Your task to perform on an android device: see creations saved in the google photos Image 0: 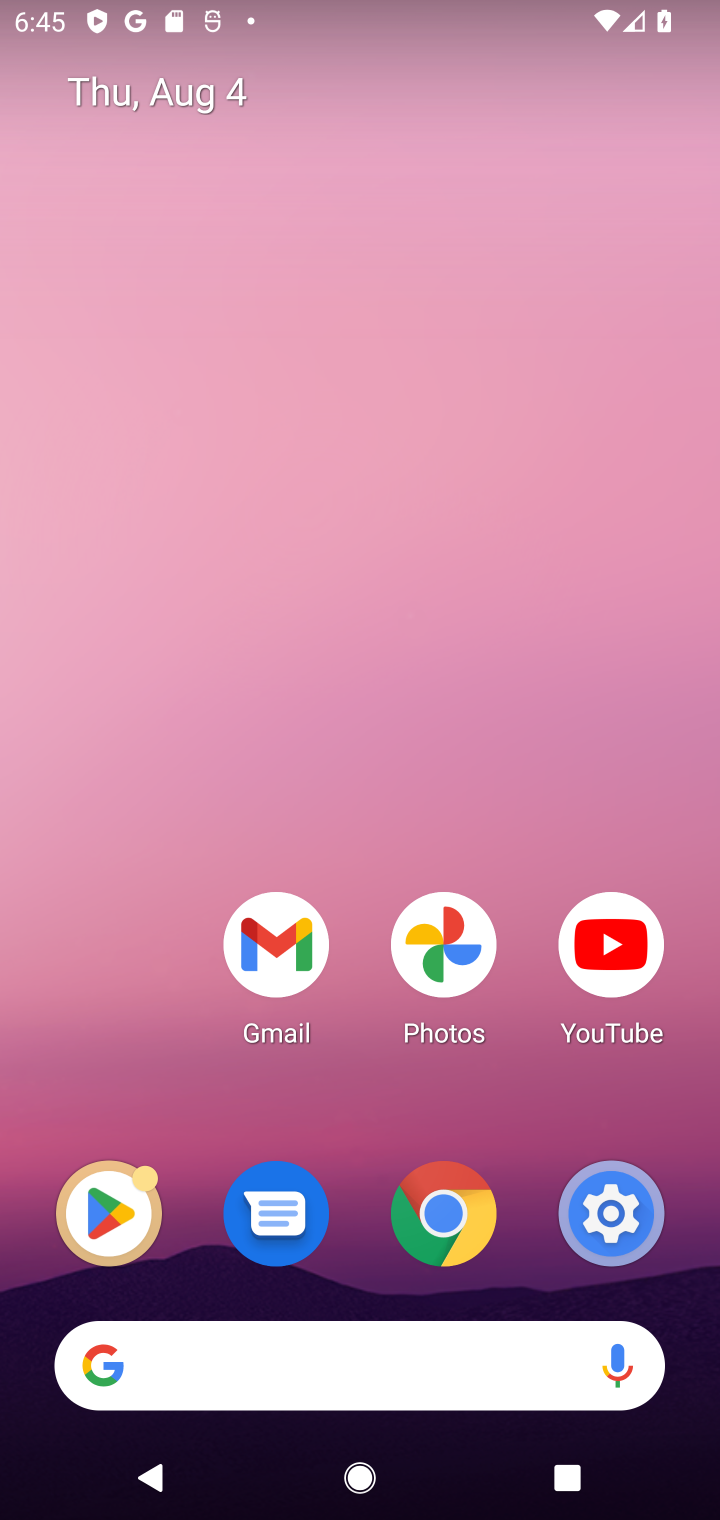
Step 0: click (428, 953)
Your task to perform on an android device: see creations saved in the google photos Image 1: 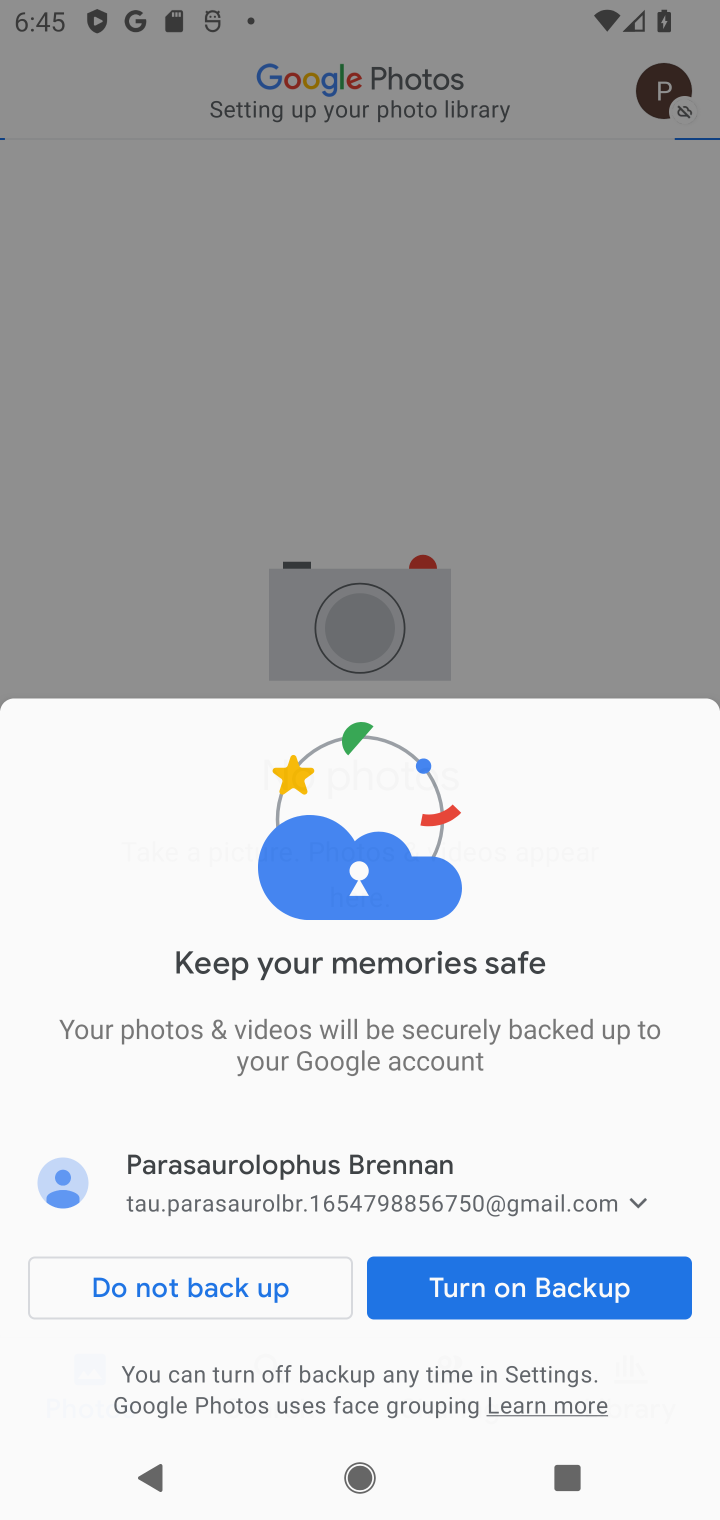
Step 1: click (241, 1463)
Your task to perform on an android device: see creations saved in the google photos Image 2: 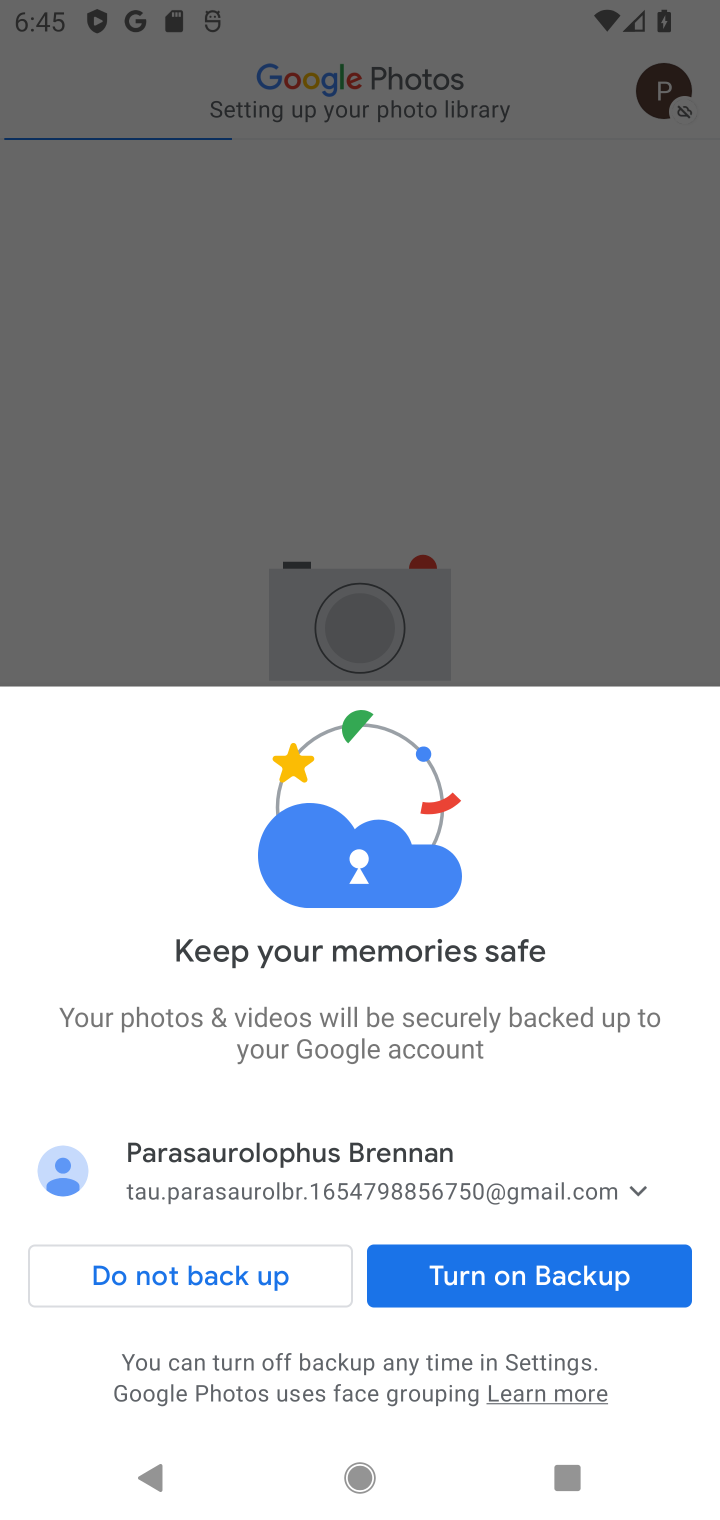
Step 2: click (578, 1270)
Your task to perform on an android device: see creations saved in the google photos Image 3: 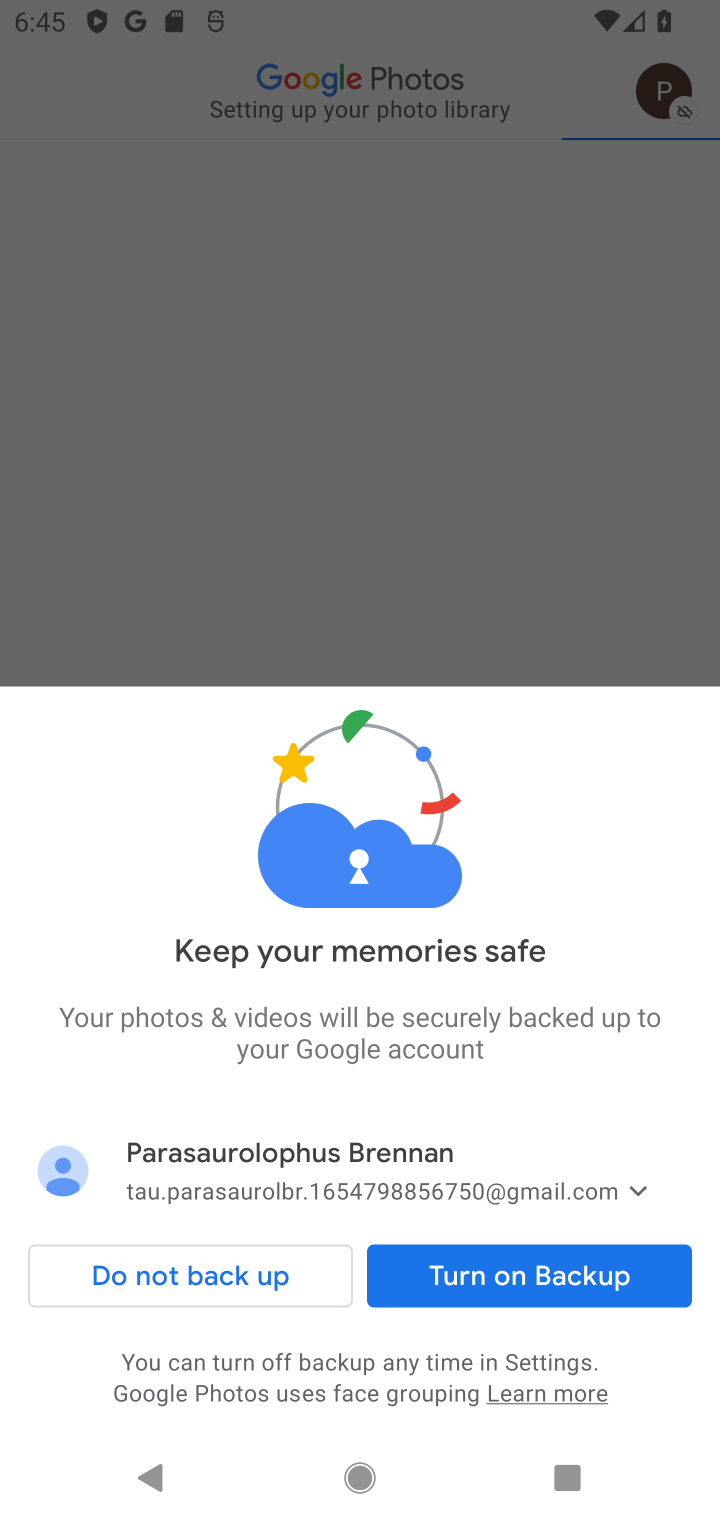
Step 3: click (545, 1284)
Your task to perform on an android device: see creations saved in the google photos Image 4: 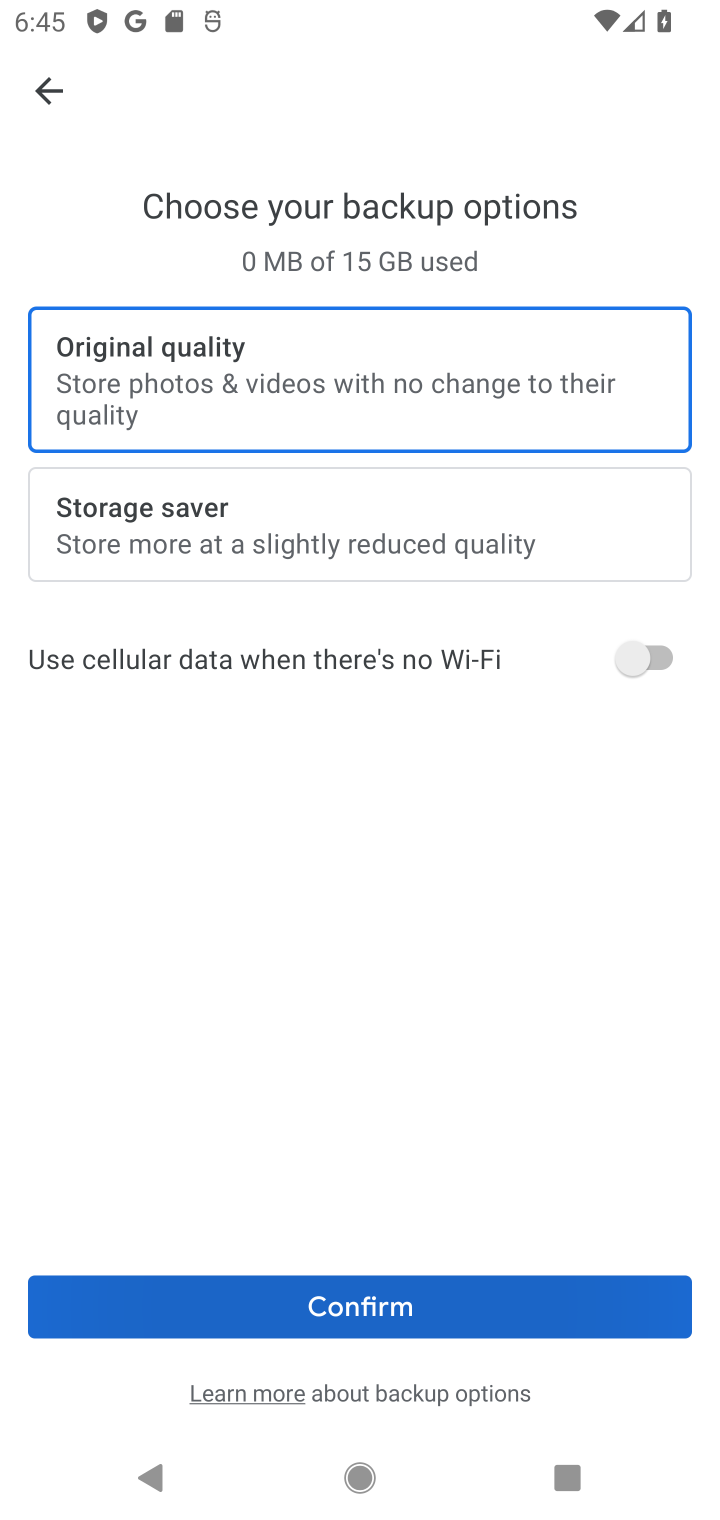
Step 4: click (505, 1286)
Your task to perform on an android device: see creations saved in the google photos Image 5: 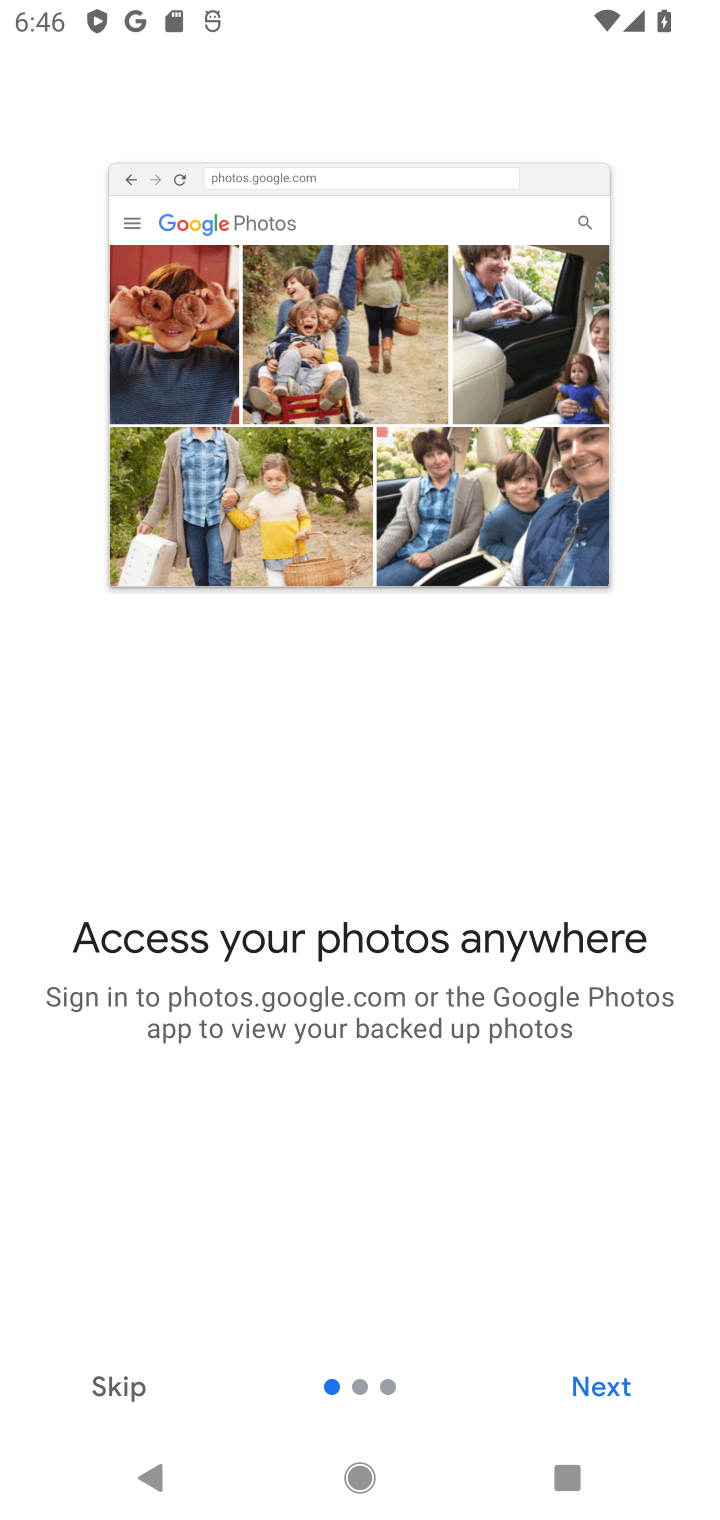
Step 5: click (110, 1378)
Your task to perform on an android device: see creations saved in the google photos Image 6: 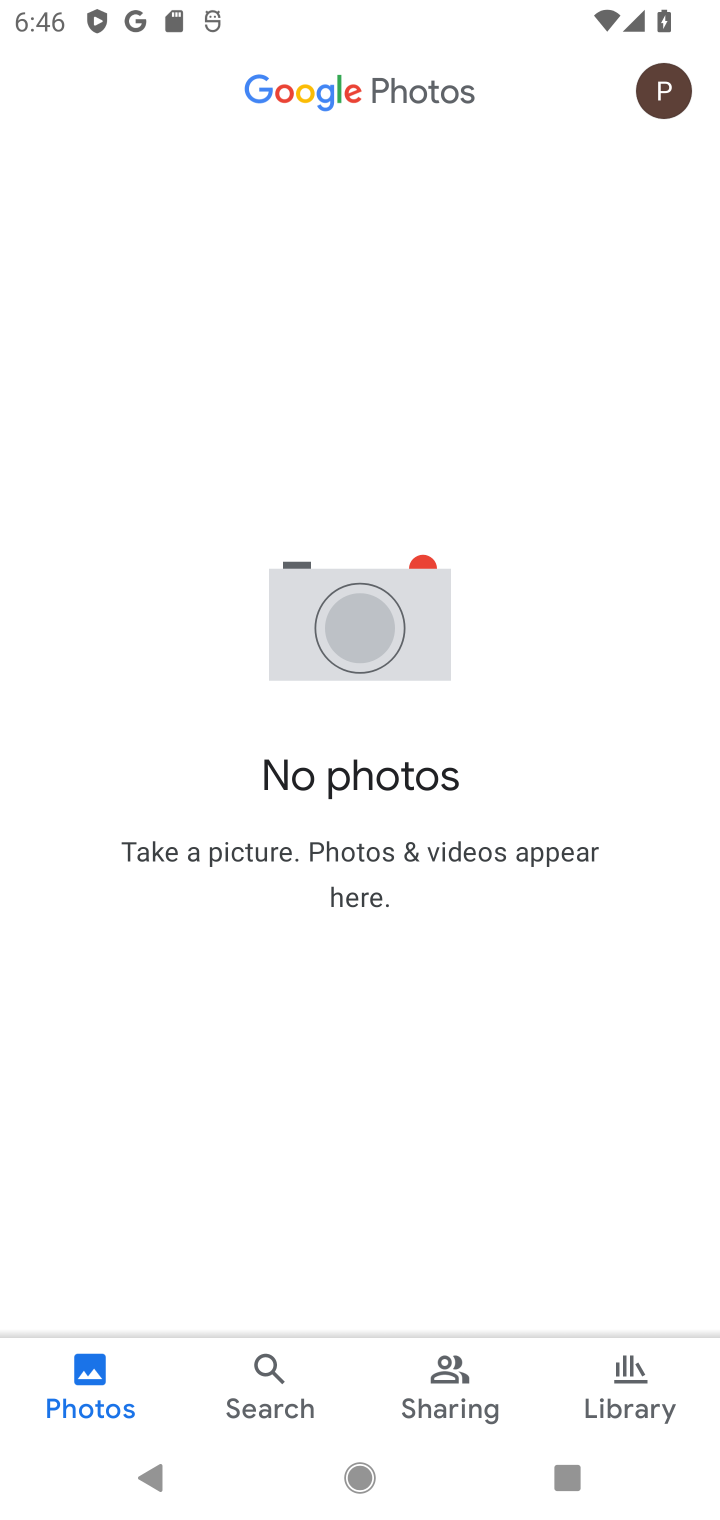
Step 6: click (267, 1386)
Your task to perform on an android device: see creations saved in the google photos Image 7: 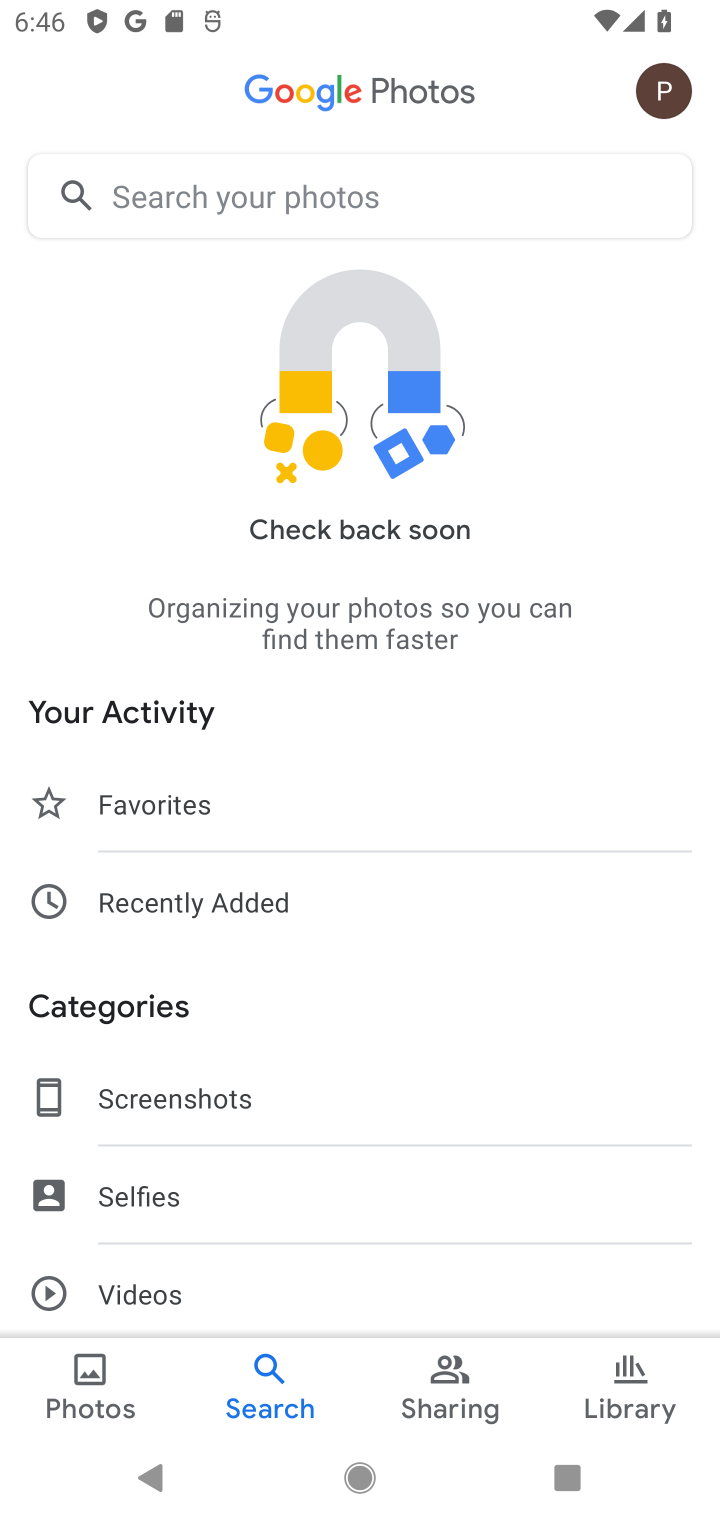
Step 7: drag from (367, 1265) to (355, 475)
Your task to perform on an android device: see creations saved in the google photos Image 8: 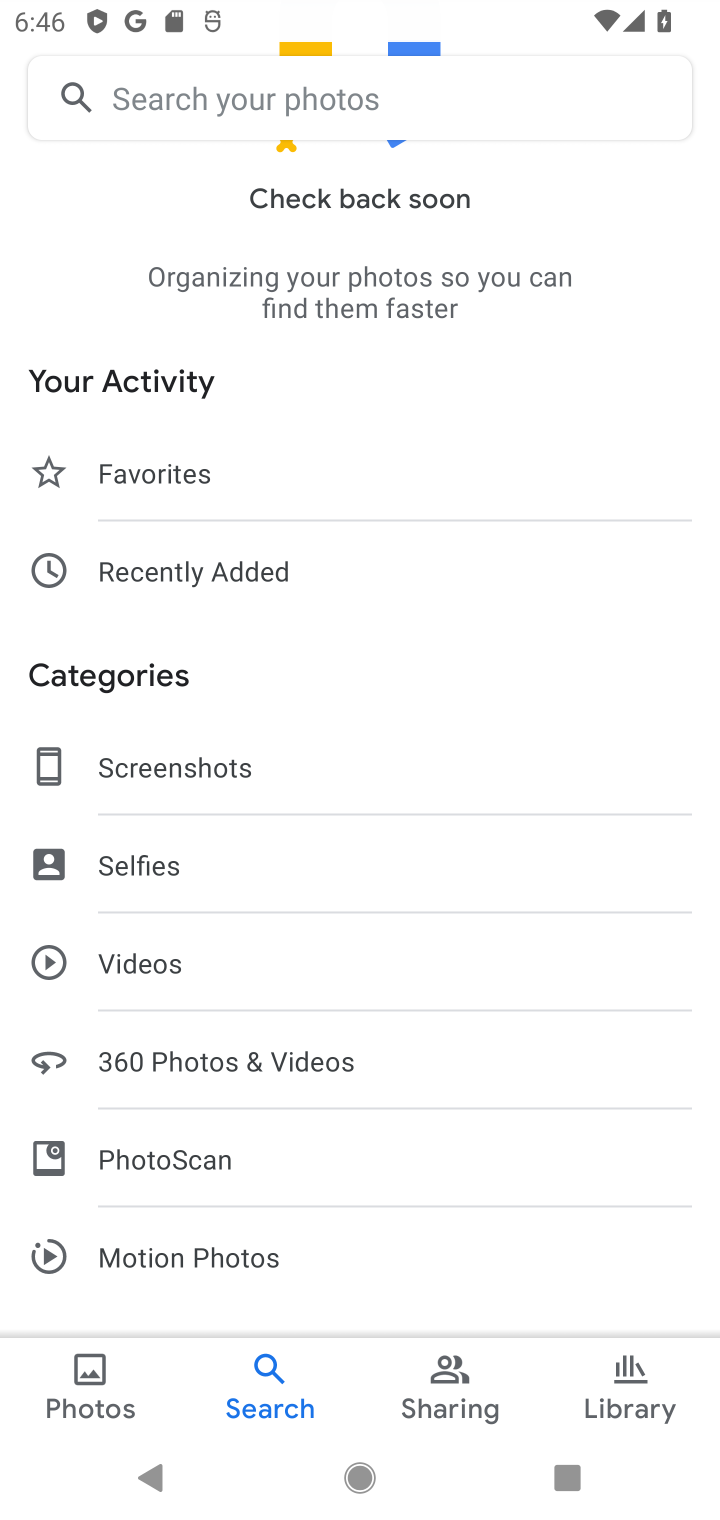
Step 8: drag from (367, 1198) to (337, 15)
Your task to perform on an android device: see creations saved in the google photos Image 9: 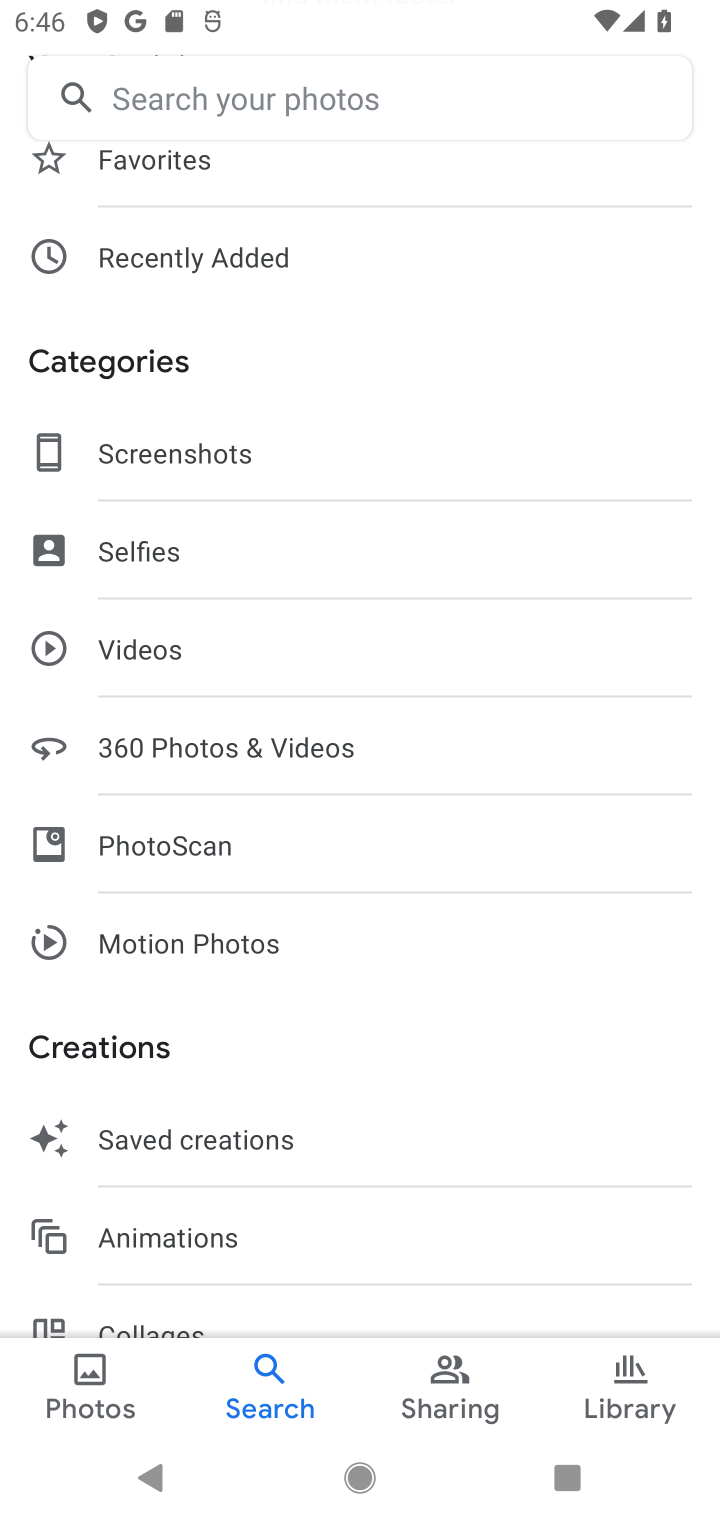
Step 9: click (254, 1152)
Your task to perform on an android device: see creations saved in the google photos Image 10: 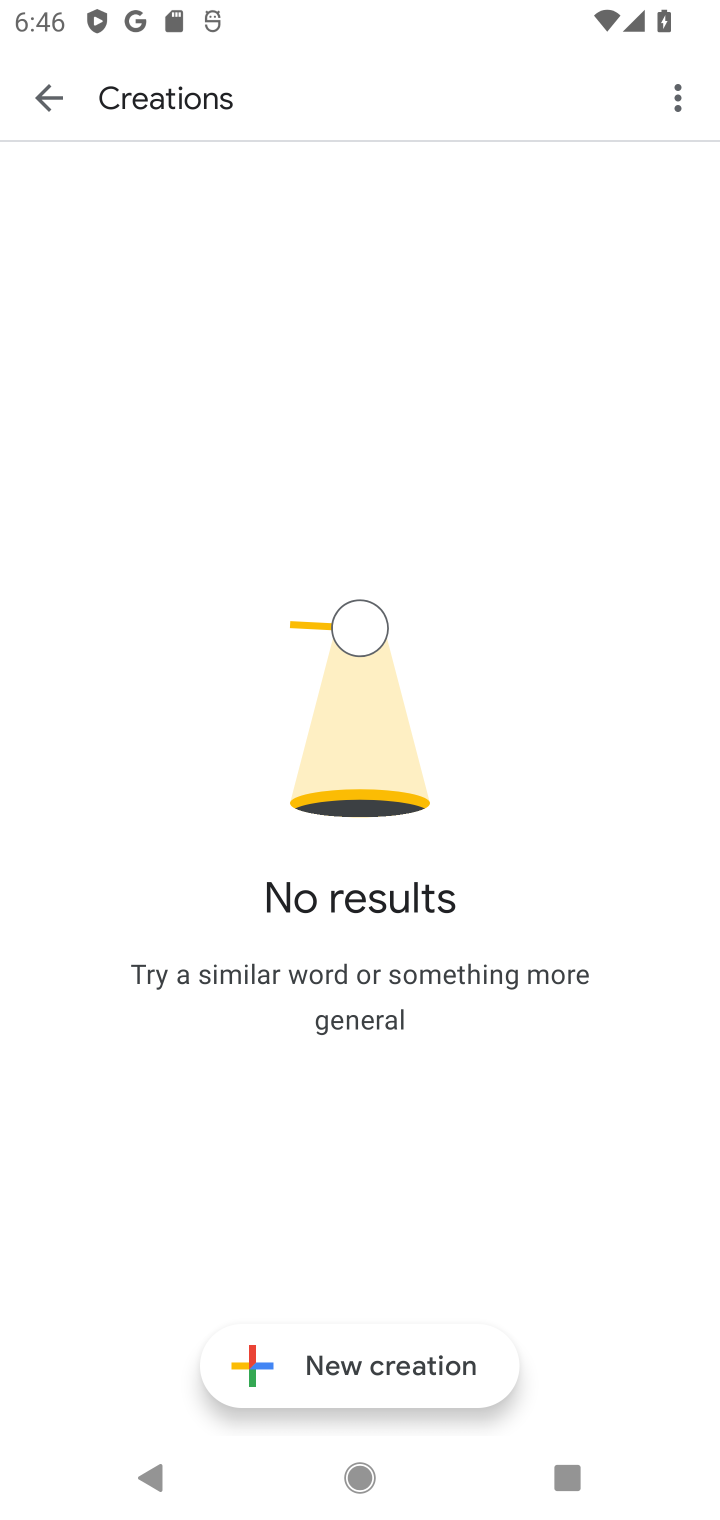
Step 10: task complete